Your task to perform on an android device: Open maps Image 0: 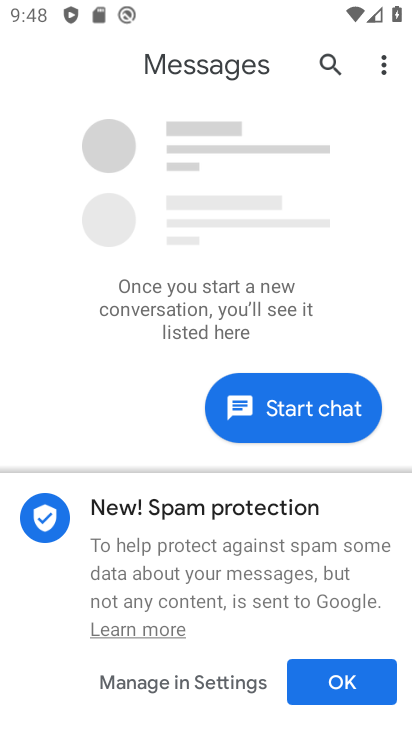
Step 0: press home button
Your task to perform on an android device: Open maps Image 1: 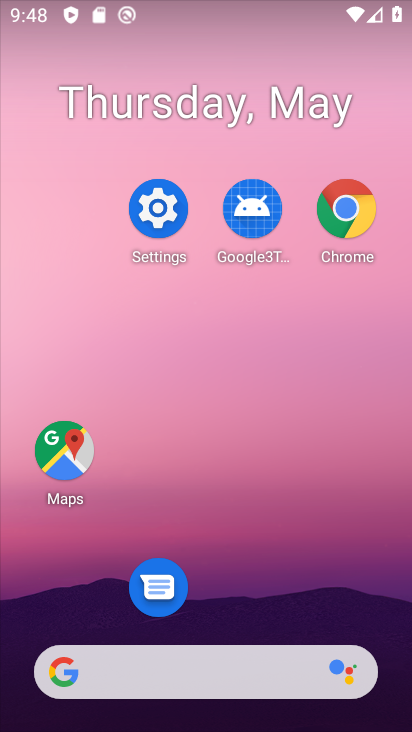
Step 1: drag from (219, 612) to (225, 174)
Your task to perform on an android device: Open maps Image 2: 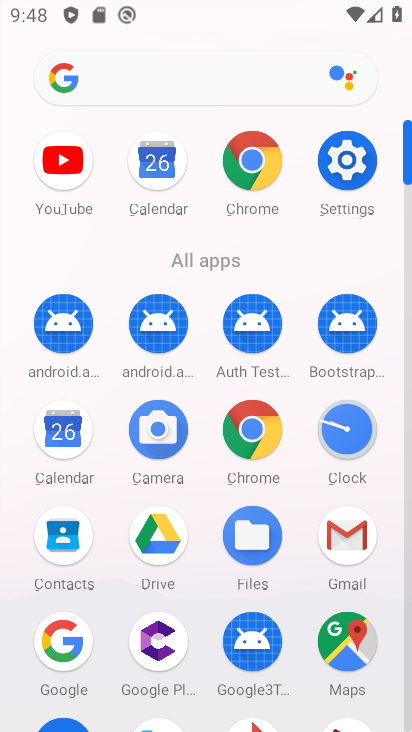
Step 2: click (348, 652)
Your task to perform on an android device: Open maps Image 3: 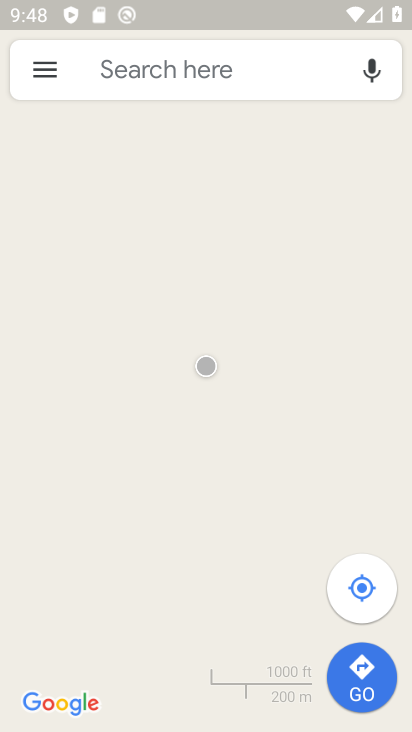
Step 3: task complete